Your task to perform on an android device: Turn off the flashlight Image 0: 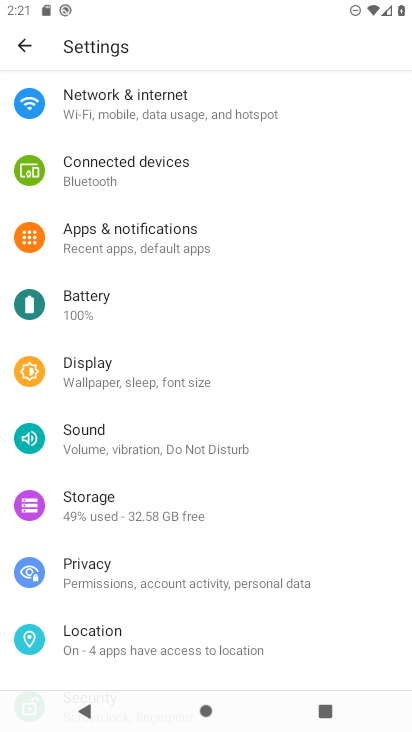
Step 0: press home button
Your task to perform on an android device: Turn off the flashlight Image 1: 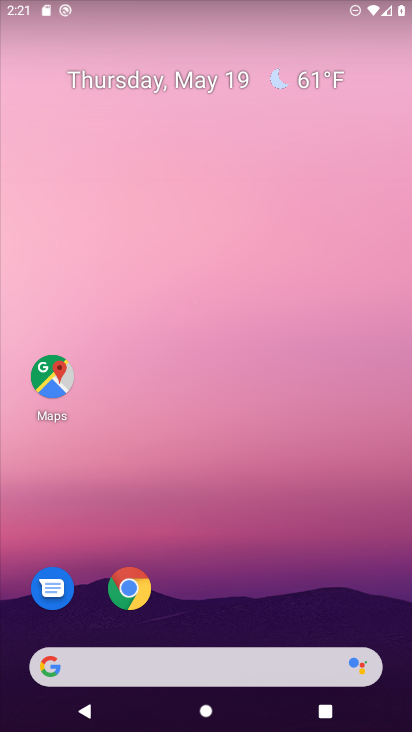
Step 1: task complete